Your task to perform on an android device: Open Google Maps Image 0: 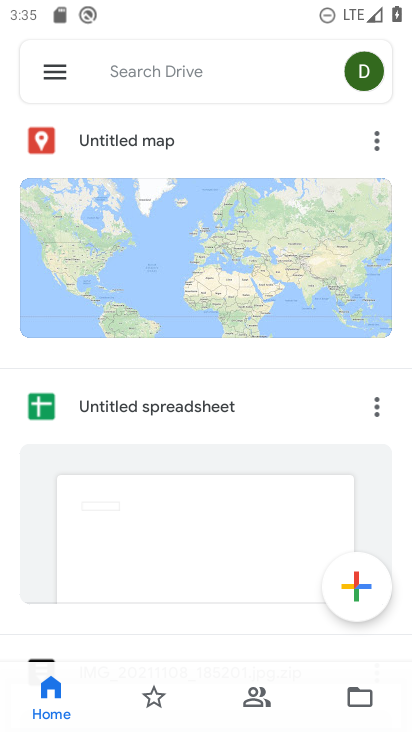
Step 0: press home button
Your task to perform on an android device: Open Google Maps Image 1: 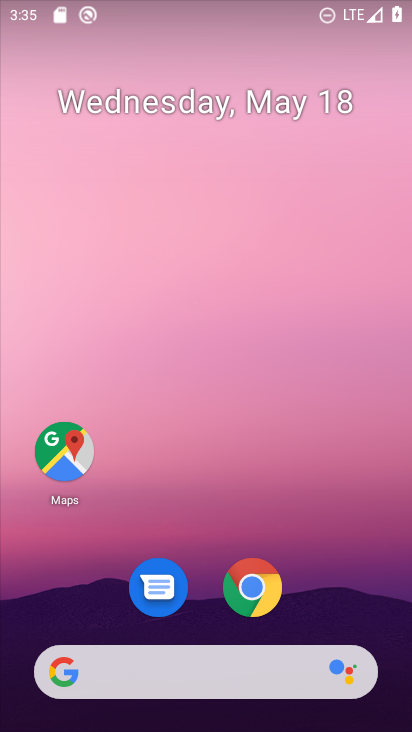
Step 1: click (72, 442)
Your task to perform on an android device: Open Google Maps Image 2: 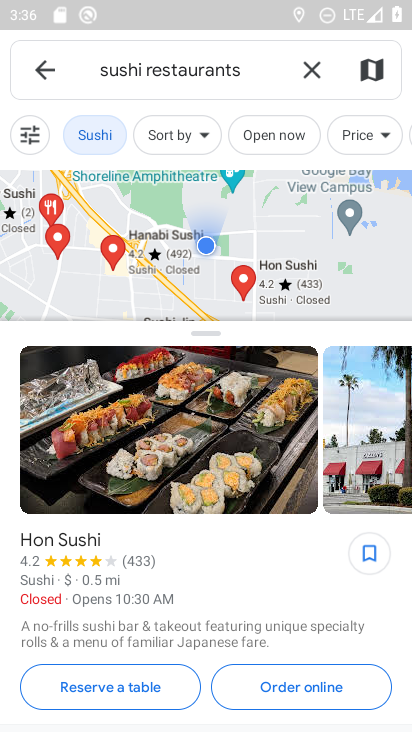
Step 2: task complete